Your task to perform on an android device: turn vacation reply on in the gmail app Image 0: 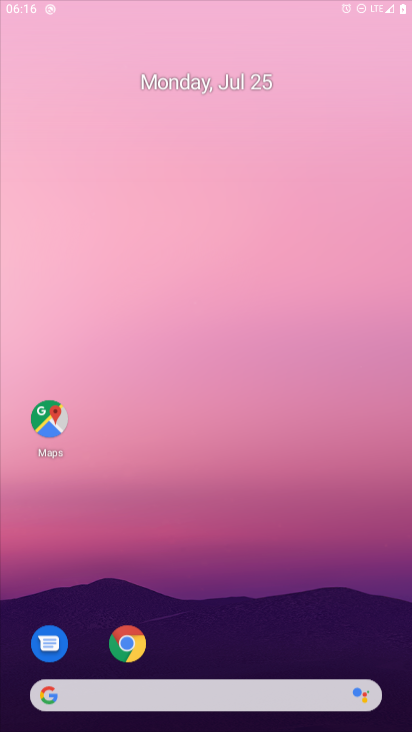
Step 0: press home button
Your task to perform on an android device: turn vacation reply on in the gmail app Image 1: 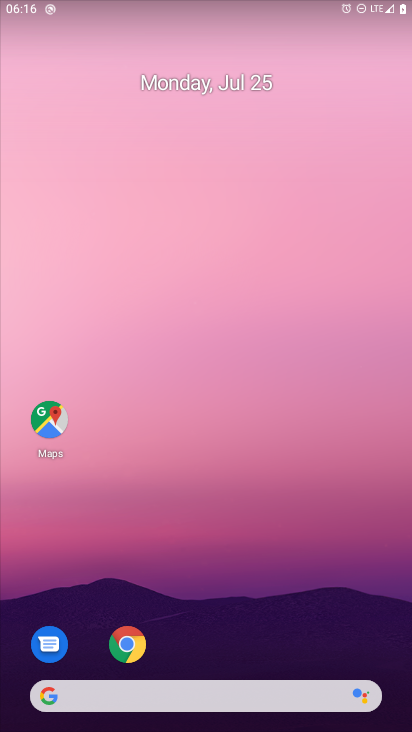
Step 1: drag from (263, 666) to (375, 14)
Your task to perform on an android device: turn vacation reply on in the gmail app Image 2: 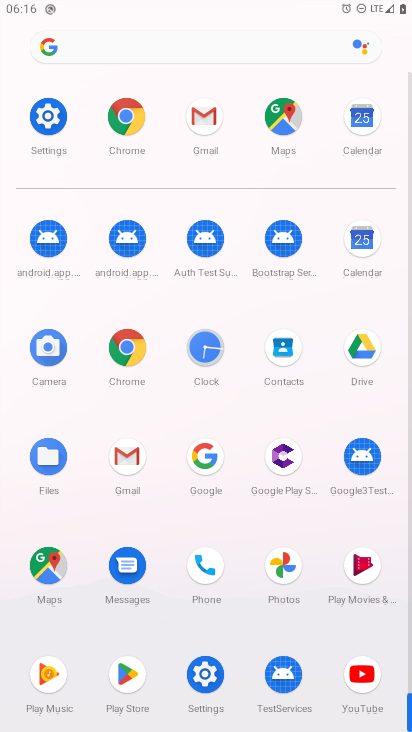
Step 2: click (203, 119)
Your task to perform on an android device: turn vacation reply on in the gmail app Image 3: 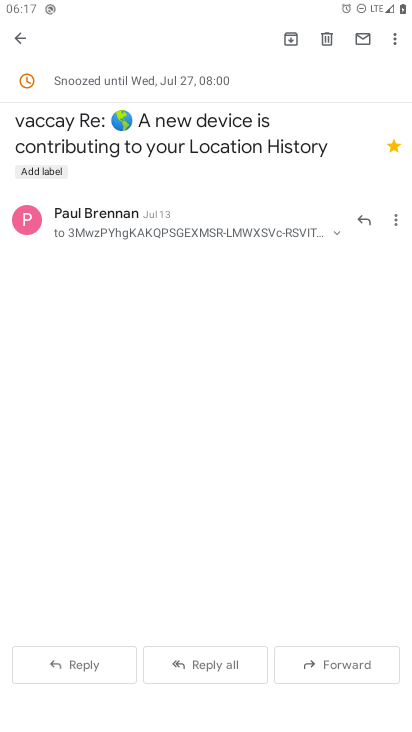
Step 3: click (24, 36)
Your task to perform on an android device: turn vacation reply on in the gmail app Image 4: 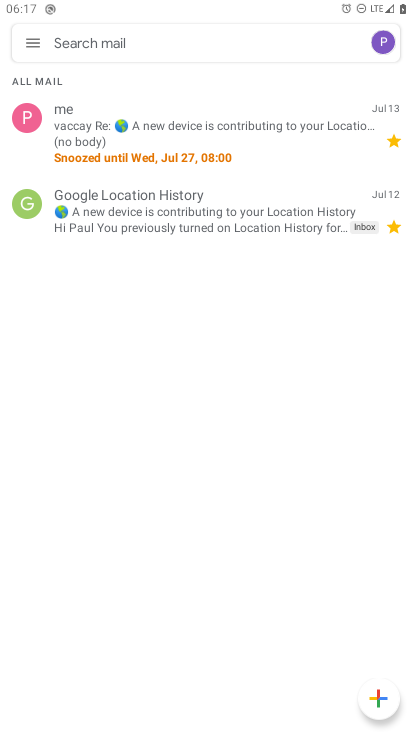
Step 4: click (38, 43)
Your task to perform on an android device: turn vacation reply on in the gmail app Image 5: 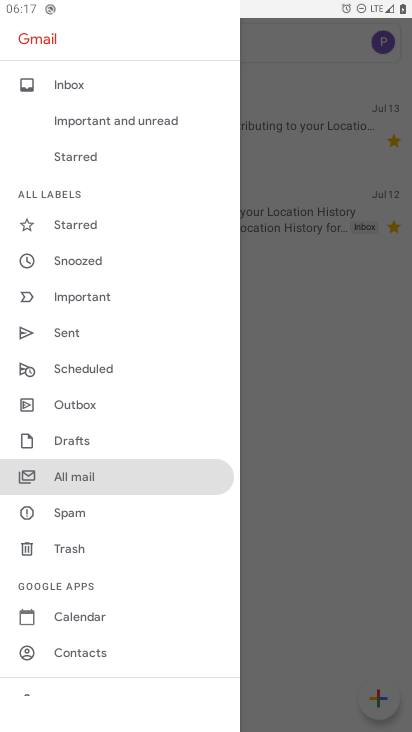
Step 5: drag from (174, 620) to (151, 134)
Your task to perform on an android device: turn vacation reply on in the gmail app Image 6: 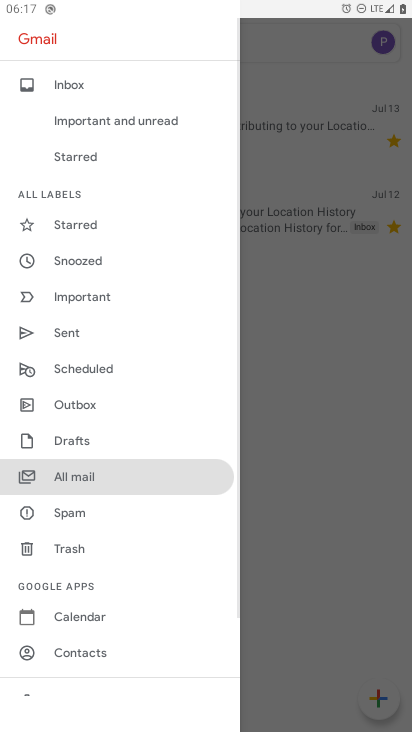
Step 6: drag from (169, 609) to (165, 157)
Your task to perform on an android device: turn vacation reply on in the gmail app Image 7: 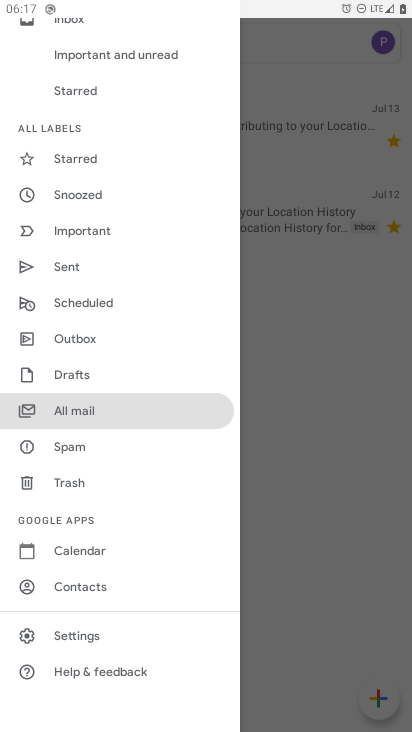
Step 7: click (87, 637)
Your task to perform on an android device: turn vacation reply on in the gmail app Image 8: 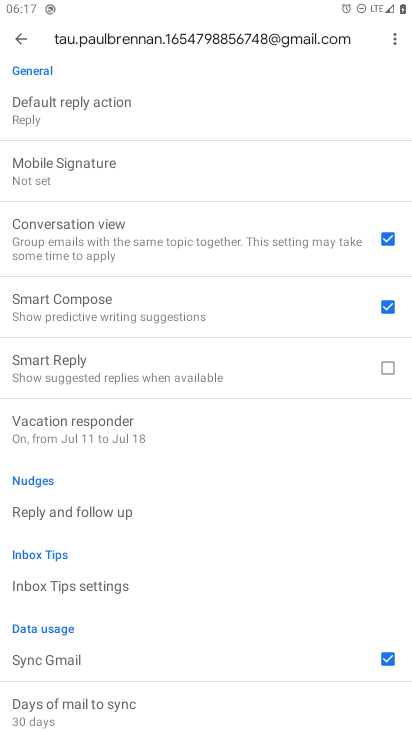
Step 8: drag from (337, 595) to (313, 1)
Your task to perform on an android device: turn vacation reply on in the gmail app Image 9: 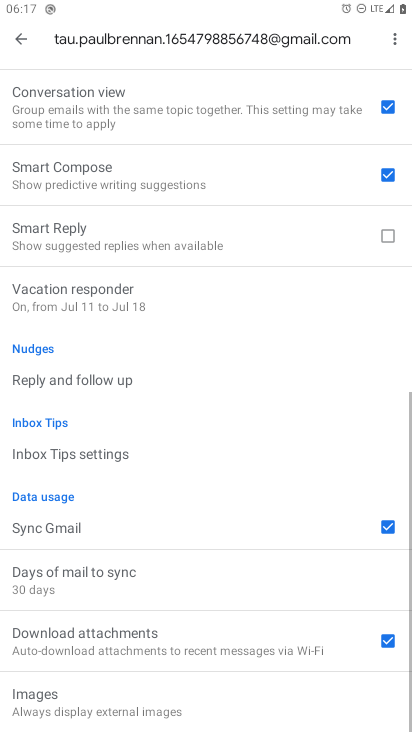
Step 9: drag from (66, 429) to (87, 378)
Your task to perform on an android device: turn vacation reply on in the gmail app Image 10: 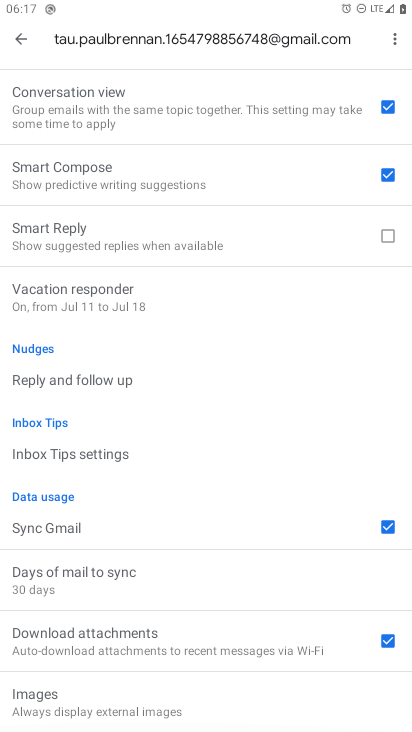
Step 10: click (79, 305)
Your task to perform on an android device: turn vacation reply on in the gmail app Image 11: 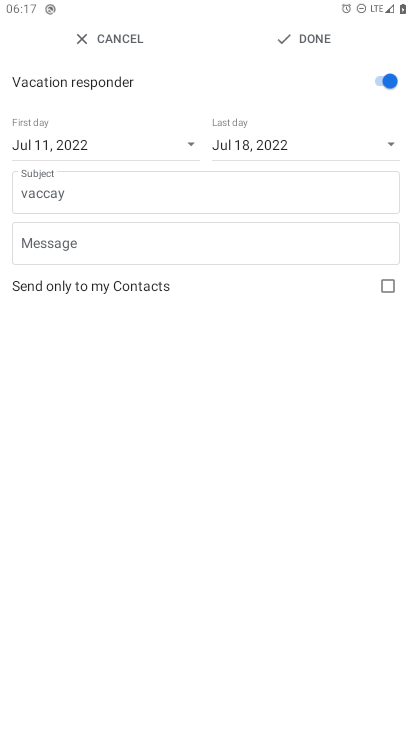
Step 11: task complete